Your task to perform on an android device: Go to Yahoo.com Image 0: 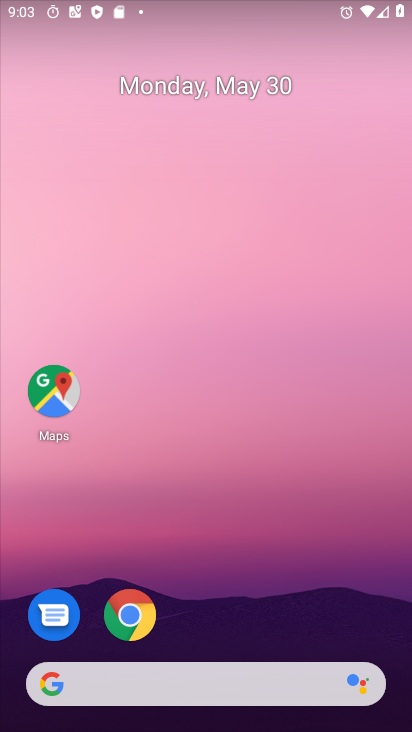
Step 0: drag from (319, 543) to (283, 57)
Your task to perform on an android device: Go to Yahoo.com Image 1: 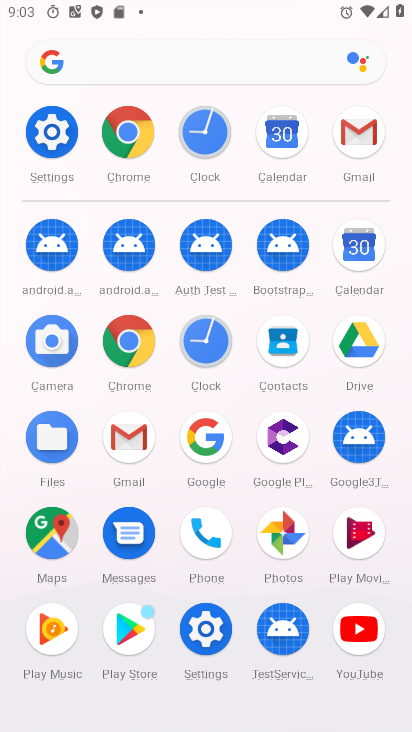
Step 1: click (138, 135)
Your task to perform on an android device: Go to Yahoo.com Image 2: 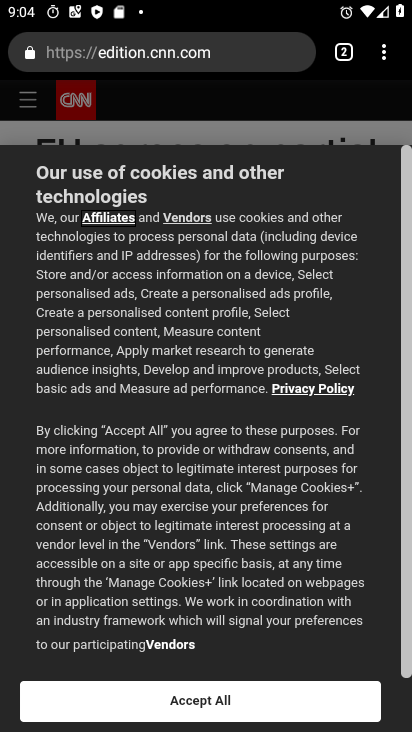
Step 2: click (203, 54)
Your task to perform on an android device: Go to Yahoo.com Image 3: 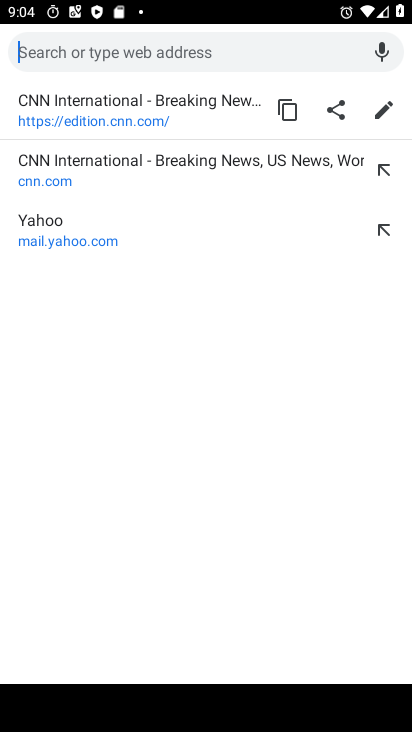
Step 3: click (56, 240)
Your task to perform on an android device: Go to Yahoo.com Image 4: 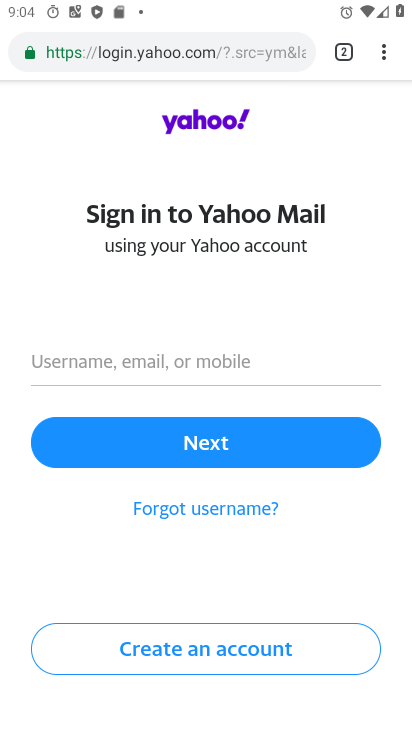
Step 4: task complete